Your task to perform on an android device: turn off data saver in the chrome app Image 0: 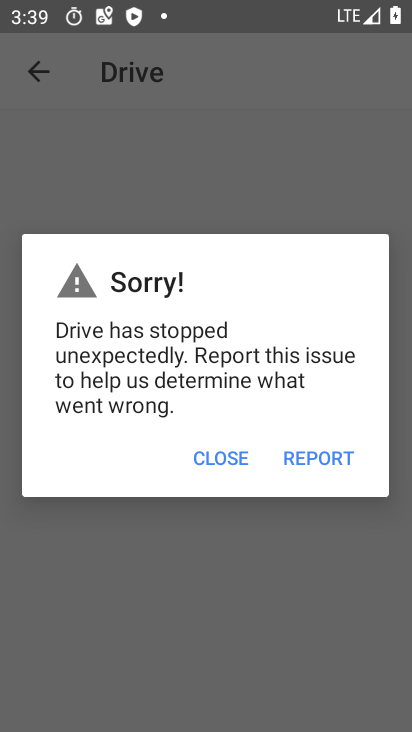
Step 0: press home button
Your task to perform on an android device: turn off data saver in the chrome app Image 1: 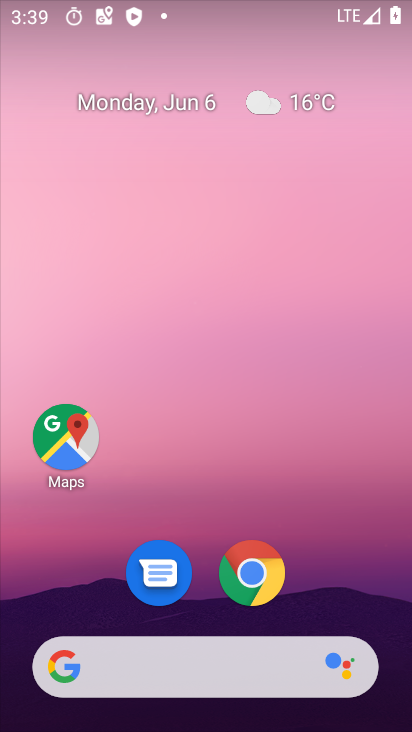
Step 1: drag from (382, 608) to (349, 165)
Your task to perform on an android device: turn off data saver in the chrome app Image 2: 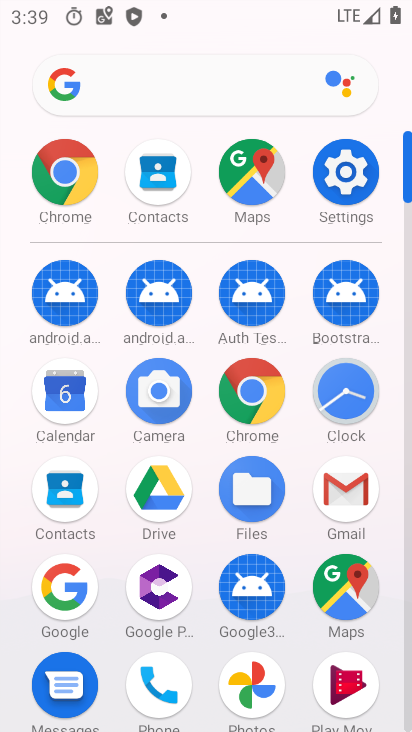
Step 2: click (262, 406)
Your task to perform on an android device: turn off data saver in the chrome app Image 3: 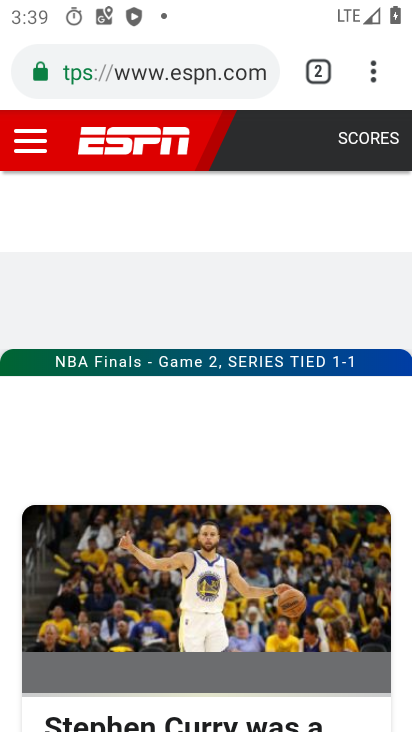
Step 3: click (369, 80)
Your task to perform on an android device: turn off data saver in the chrome app Image 4: 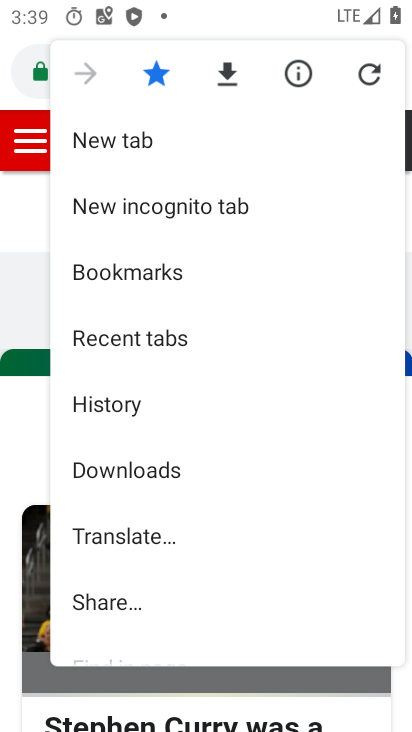
Step 4: drag from (280, 445) to (280, 375)
Your task to perform on an android device: turn off data saver in the chrome app Image 5: 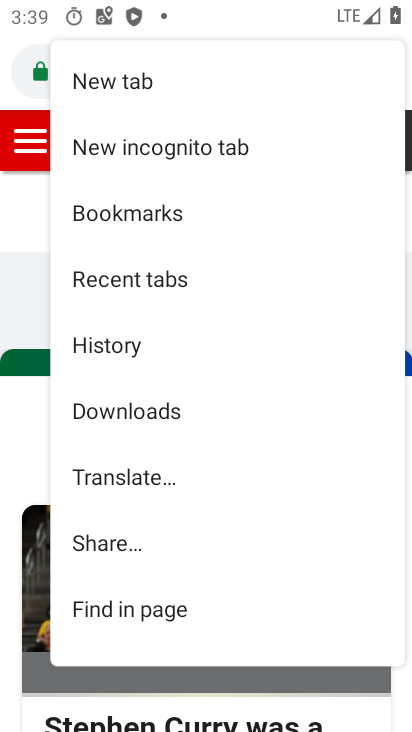
Step 5: drag from (286, 442) to (300, 359)
Your task to perform on an android device: turn off data saver in the chrome app Image 6: 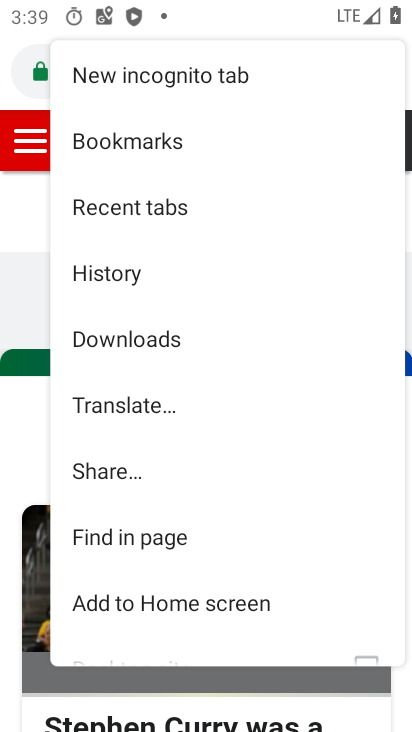
Step 6: drag from (299, 418) to (312, 330)
Your task to perform on an android device: turn off data saver in the chrome app Image 7: 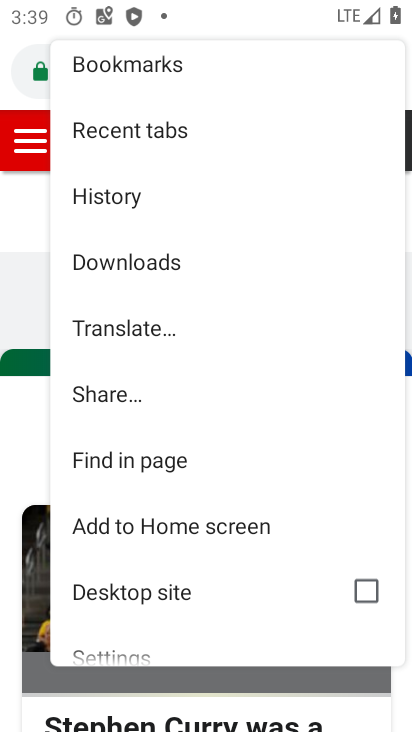
Step 7: drag from (314, 433) to (315, 342)
Your task to perform on an android device: turn off data saver in the chrome app Image 8: 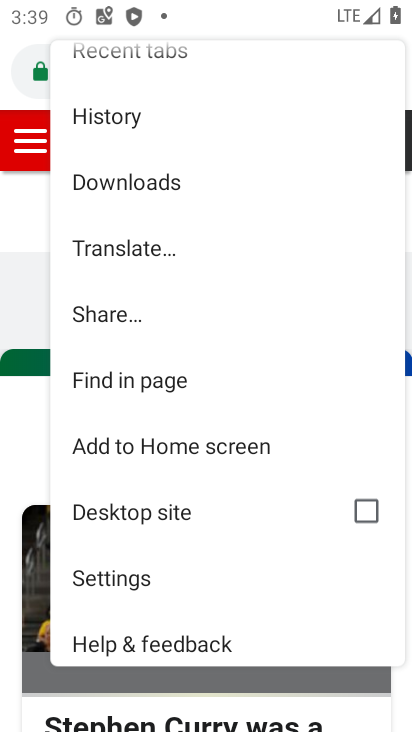
Step 8: click (193, 588)
Your task to perform on an android device: turn off data saver in the chrome app Image 9: 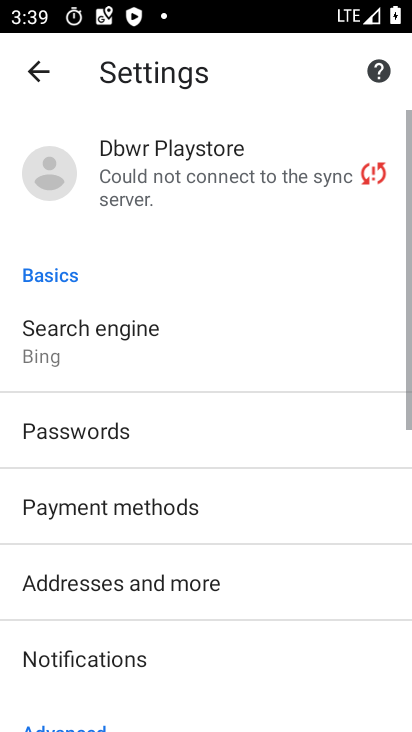
Step 9: drag from (293, 569) to (310, 486)
Your task to perform on an android device: turn off data saver in the chrome app Image 10: 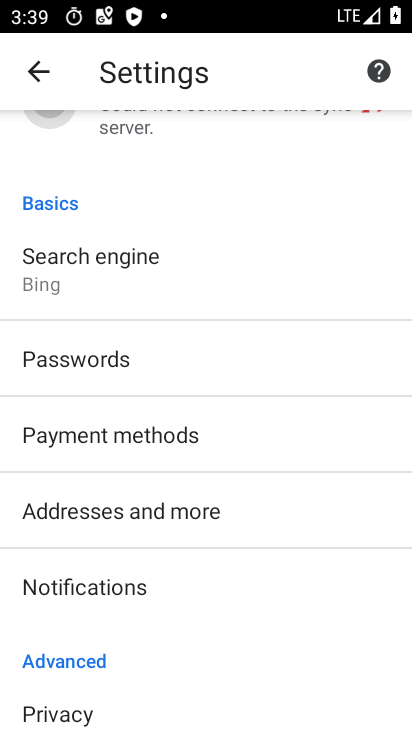
Step 10: drag from (300, 570) to (309, 502)
Your task to perform on an android device: turn off data saver in the chrome app Image 11: 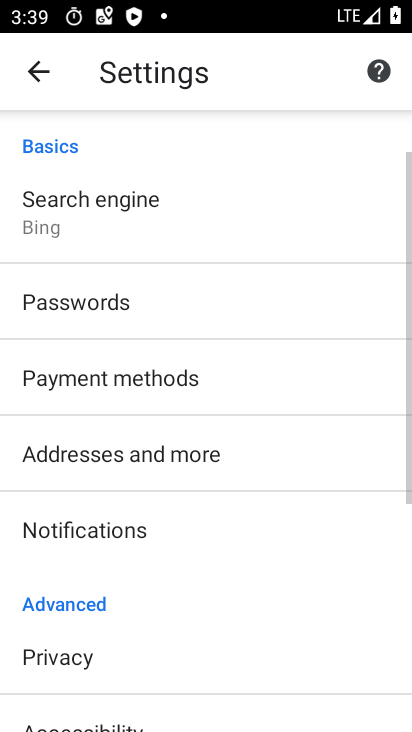
Step 11: drag from (296, 593) to (305, 513)
Your task to perform on an android device: turn off data saver in the chrome app Image 12: 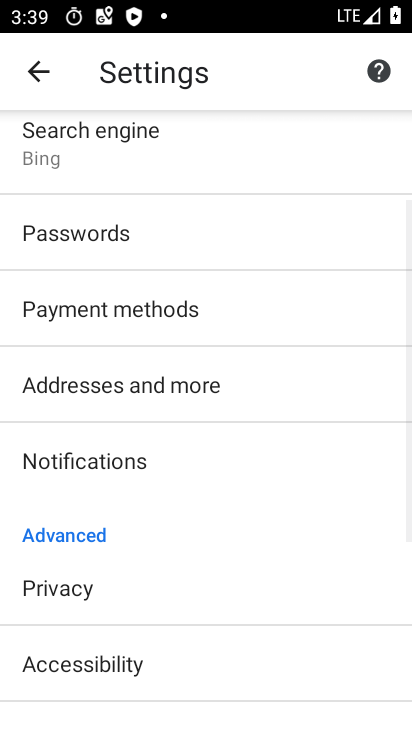
Step 12: drag from (297, 591) to (297, 512)
Your task to perform on an android device: turn off data saver in the chrome app Image 13: 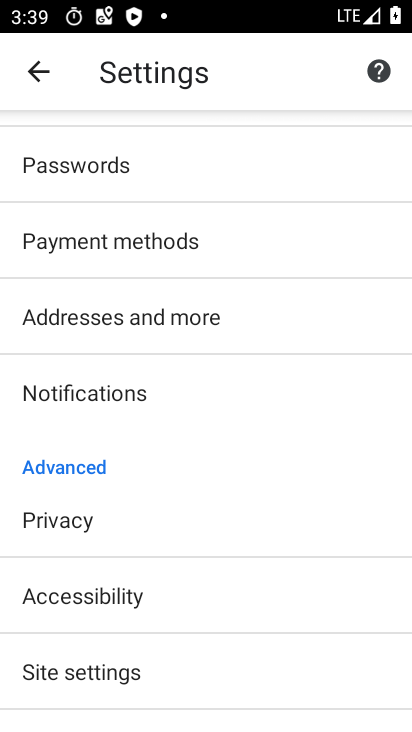
Step 13: drag from (323, 588) to (323, 496)
Your task to perform on an android device: turn off data saver in the chrome app Image 14: 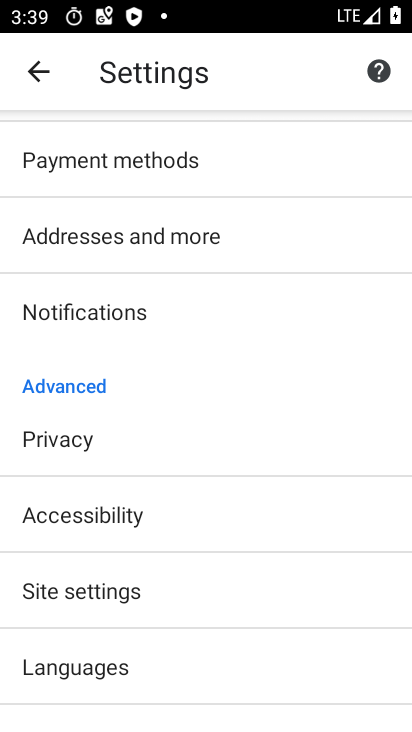
Step 14: drag from (303, 590) to (314, 491)
Your task to perform on an android device: turn off data saver in the chrome app Image 15: 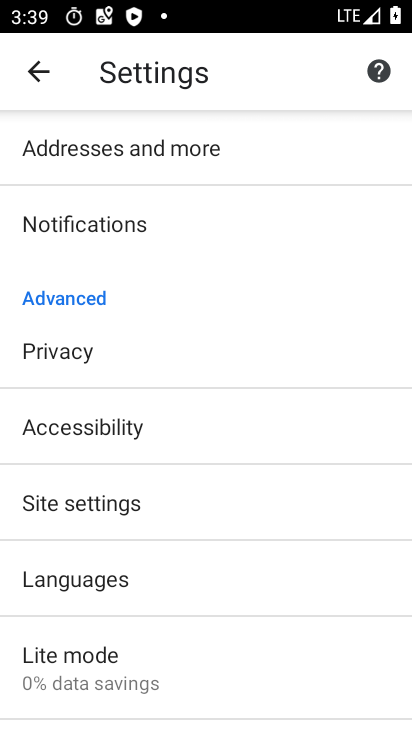
Step 15: drag from (305, 588) to (321, 425)
Your task to perform on an android device: turn off data saver in the chrome app Image 16: 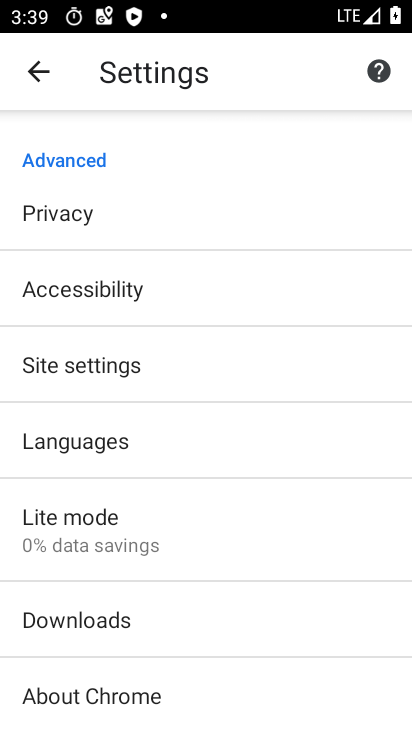
Step 16: click (278, 530)
Your task to perform on an android device: turn off data saver in the chrome app Image 17: 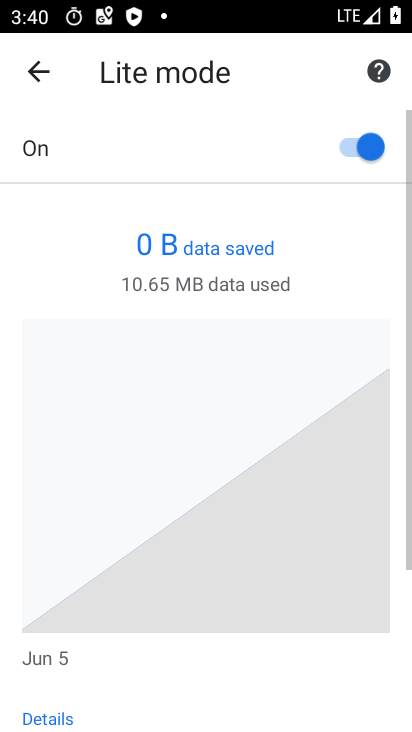
Step 17: click (356, 153)
Your task to perform on an android device: turn off data saver in the chrome app Image 18: 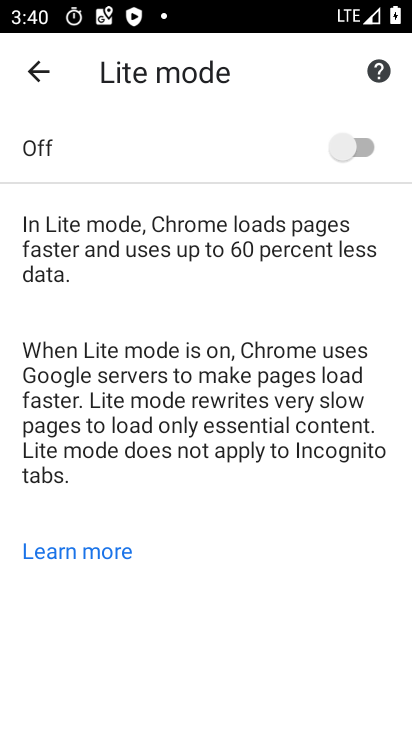
Step 18: task complete